Your task to perform on an android device: Do I have any events tomorrow? Image 0: 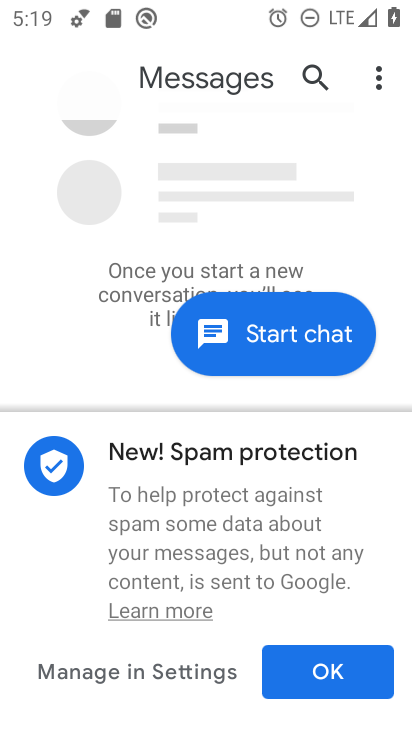
Step 0: press home button
Your task to perform on an android device: Do I have any events tomorrow? Image 1: 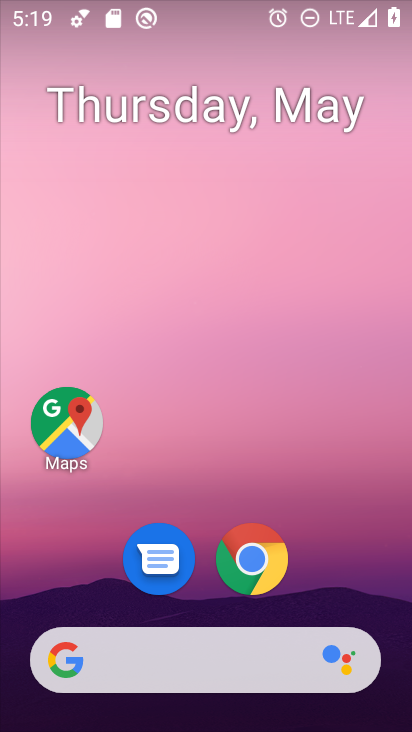
Step 1: drag from (336, 537) to (207, 3)
Your task to perform on an android device: Do I have any events tomorrow? Image 2: 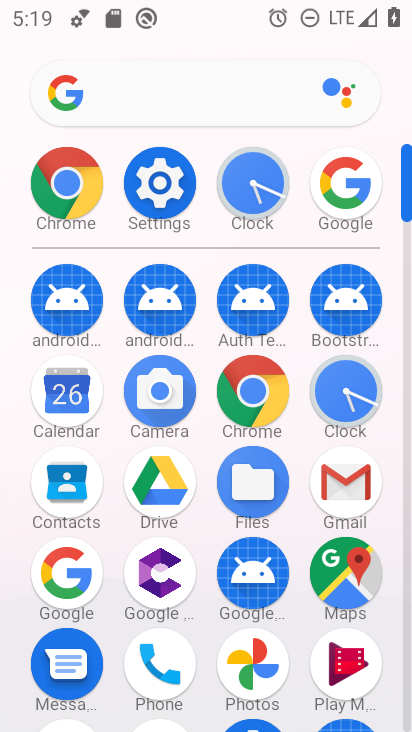
Step 2: click (80, 390)
Your task to perform on an android device: Do I have any events tomorrow? Image 3: 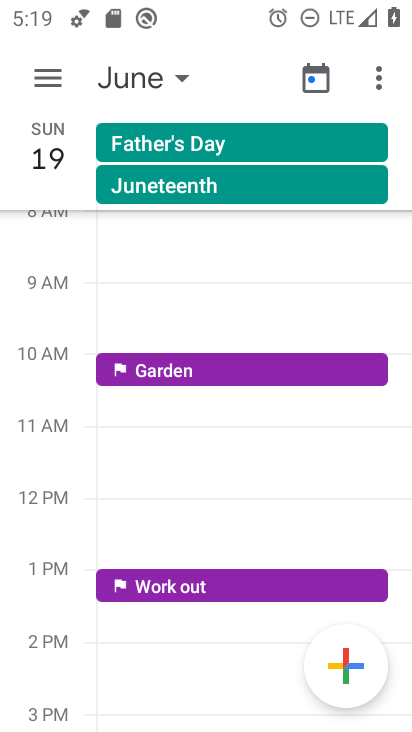
Step 3: click (172, 70)
Your task to perform on an android device: Do I have any events tomorrow? Image 4: 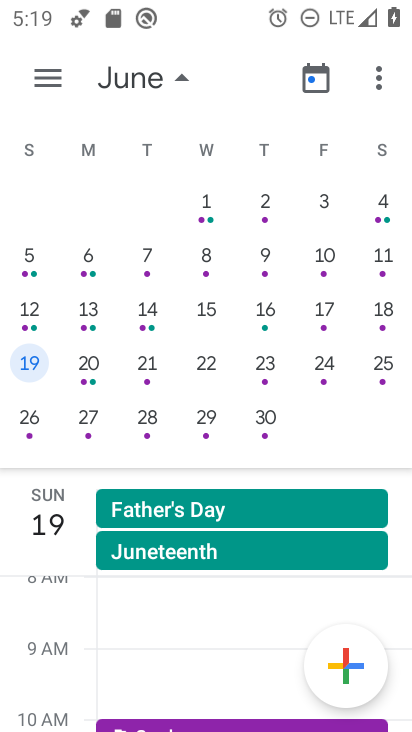
Step 4: drag from (74, 275) to (407, 227)
Your task to perform on an android device: Do I have any events tomorrow? Image 5: 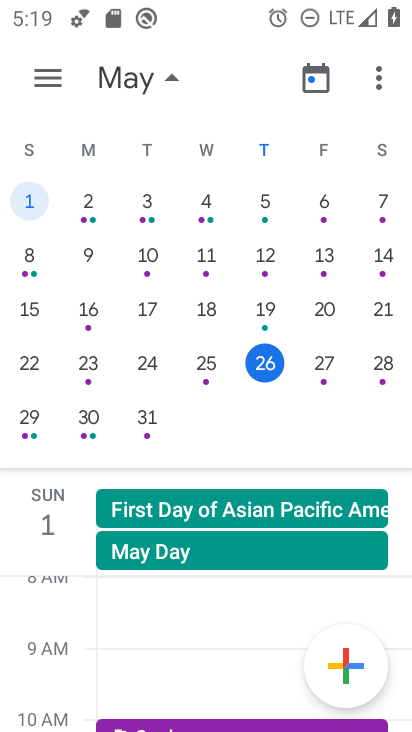
Step 5: click (321, 363)
Your task to perform on an android device: Do I have any events tomorrow? Image 6: 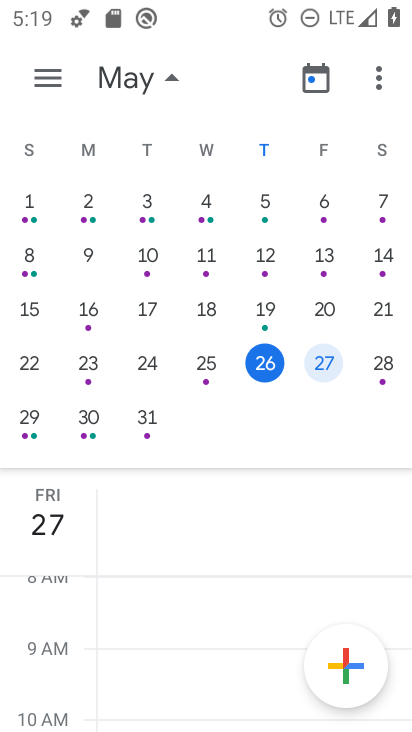
Step 6: task complete